Your task to perform on an android device: Go to privacy settings Image 0: 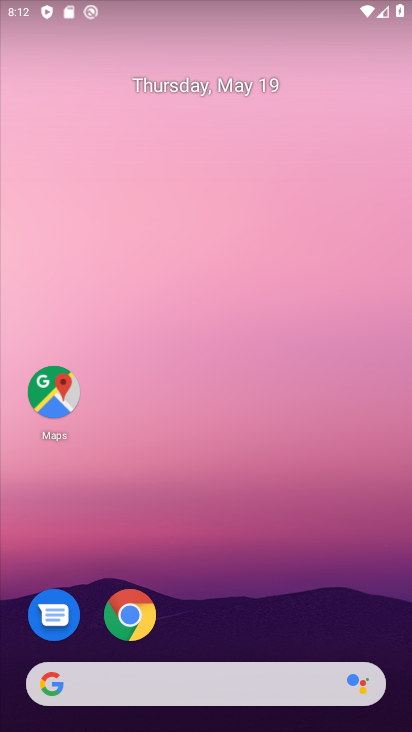
Step 0: drag from (247, 611) to (224, 220)
Your task to perform on an android device: Go to privacy settings Image 1: 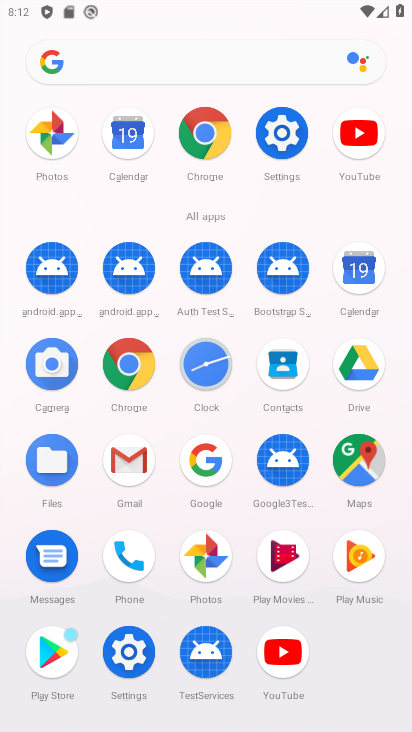
Step 1: click (128, 650)
Your task to perform on an android device: Go to privacy settings Image 2: 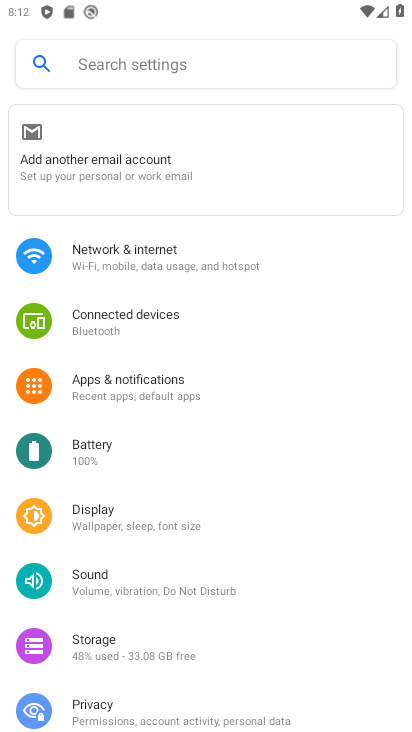
Step 2: drag from (107, 551) to (154, 483)
Your task to perform on an android device: Go to privacy settings Image 3: 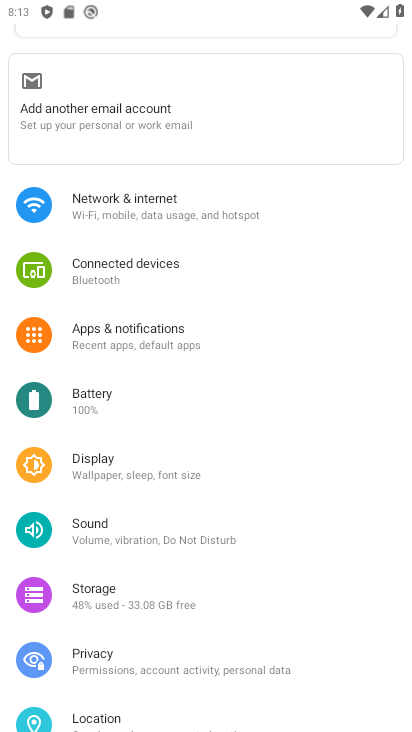
Step 3: drag from (104, 561) to (177, 473)
Your task to perform on an android device: Go to privacy settings Image 4: 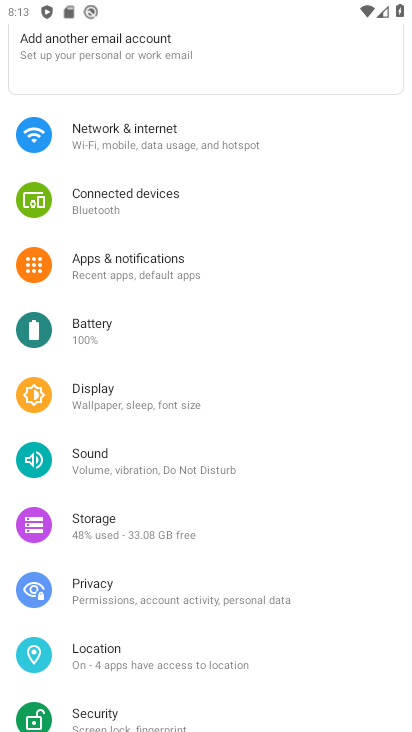
Step 4: click (89, 589)
Your task to perform on an android device: Go to privacy settings Image 5: 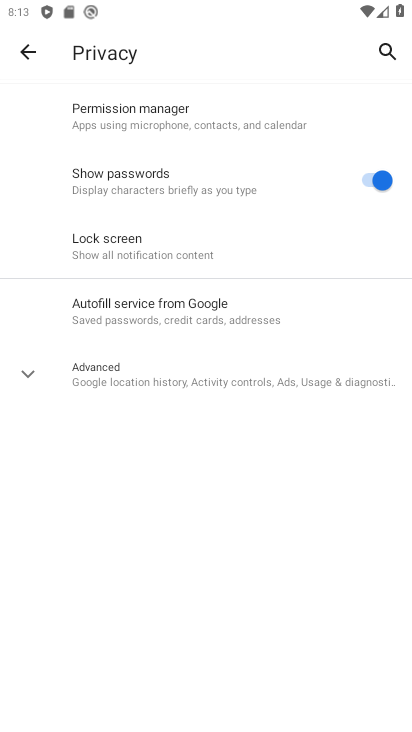
Step 5: task complete